Your task to perform on an android device: open app "Microsoft Excel" Image 0: 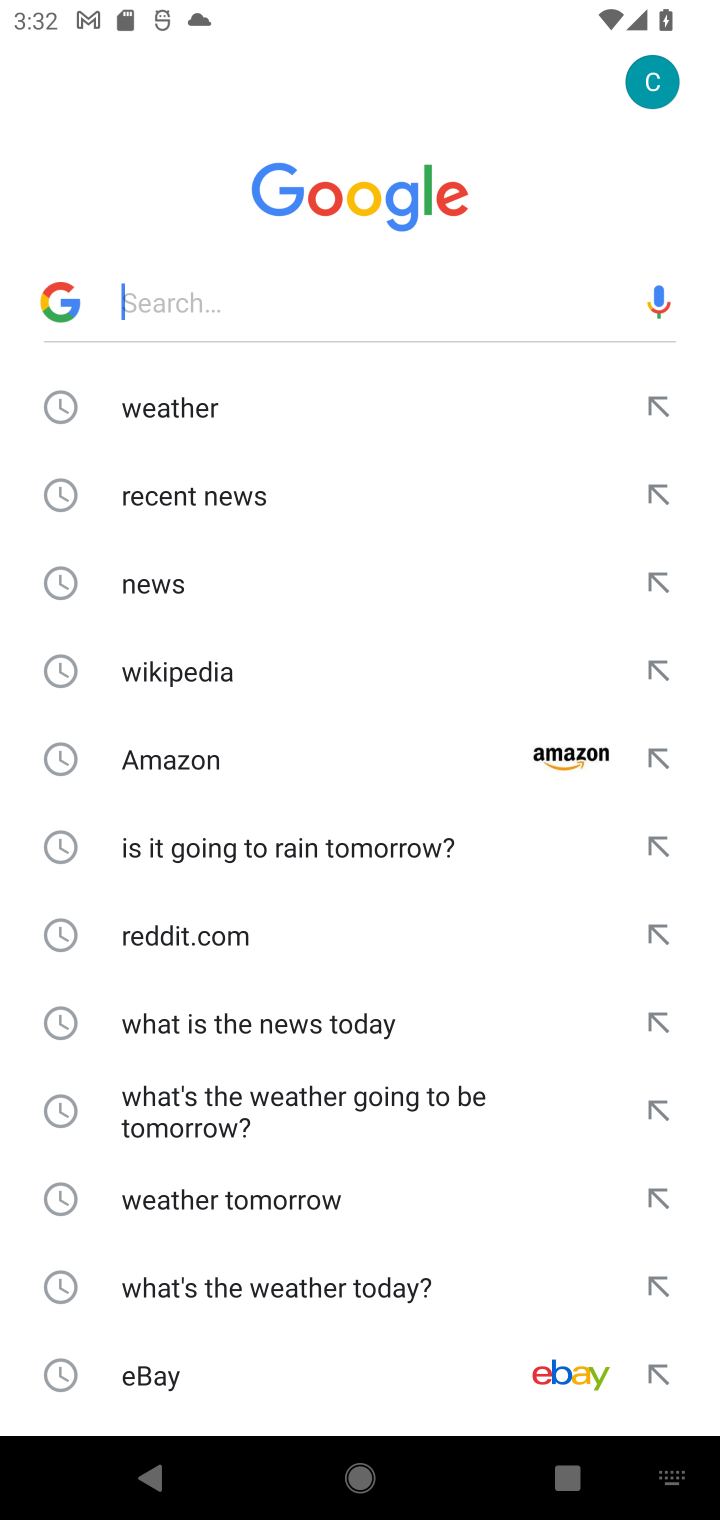
Step 0: press home button
Your task to perform on an android device: open app "Microsoft Excel" Image 1: 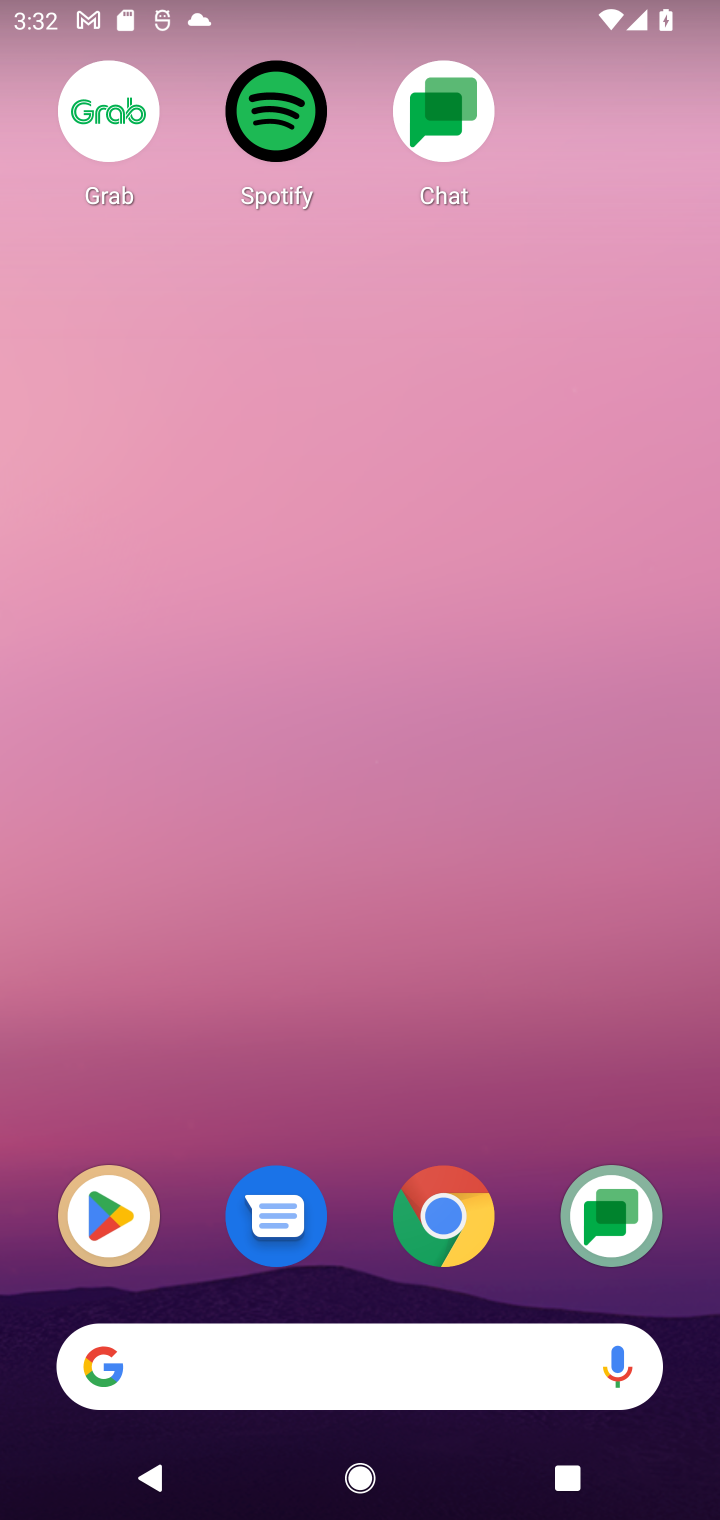
Step 1: click (442, 1324)
Your task to perform on an android device: open app "Microsoft Excel" Image 2: 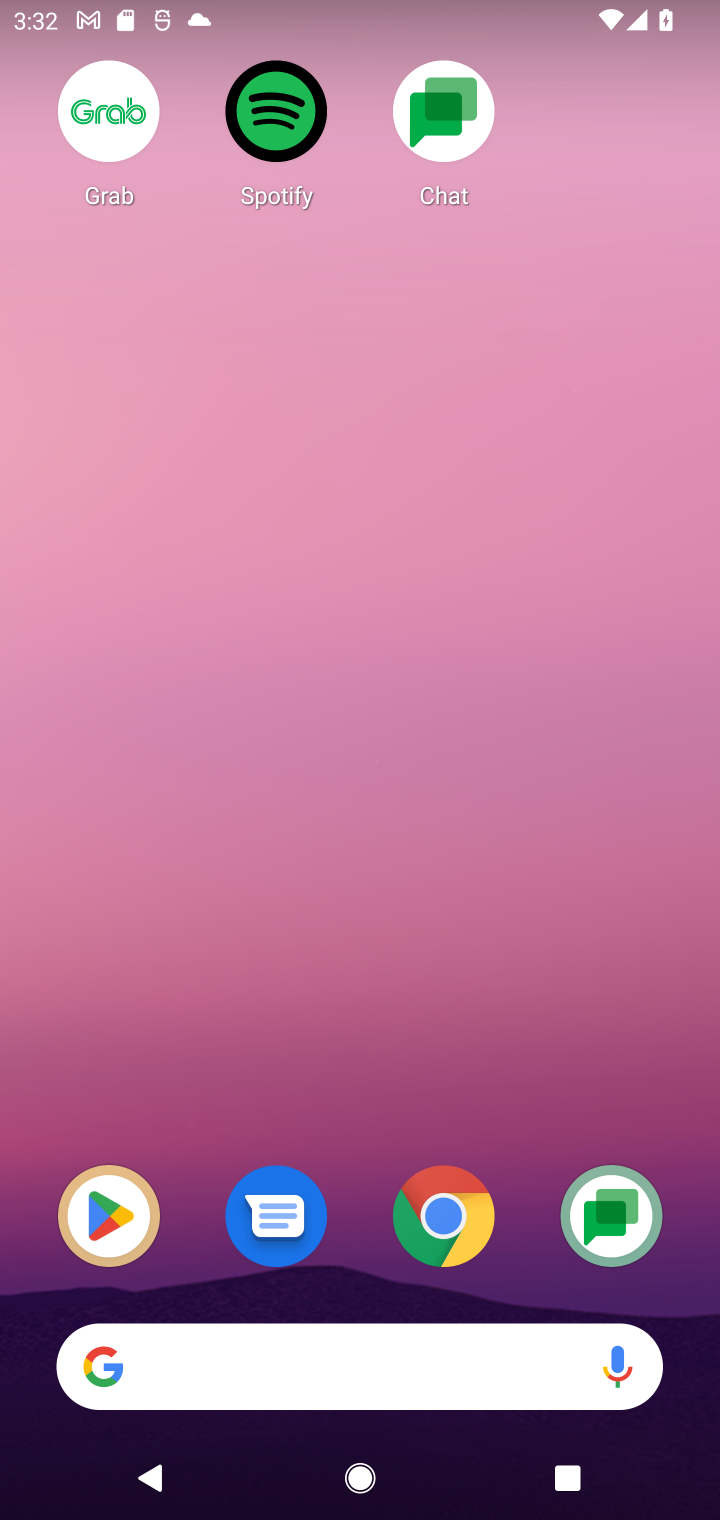
Step 2: drag from (442, 1324) to (409, 165)
Your task to perform on an android device: open app "Microsoft Excel" Image 3: 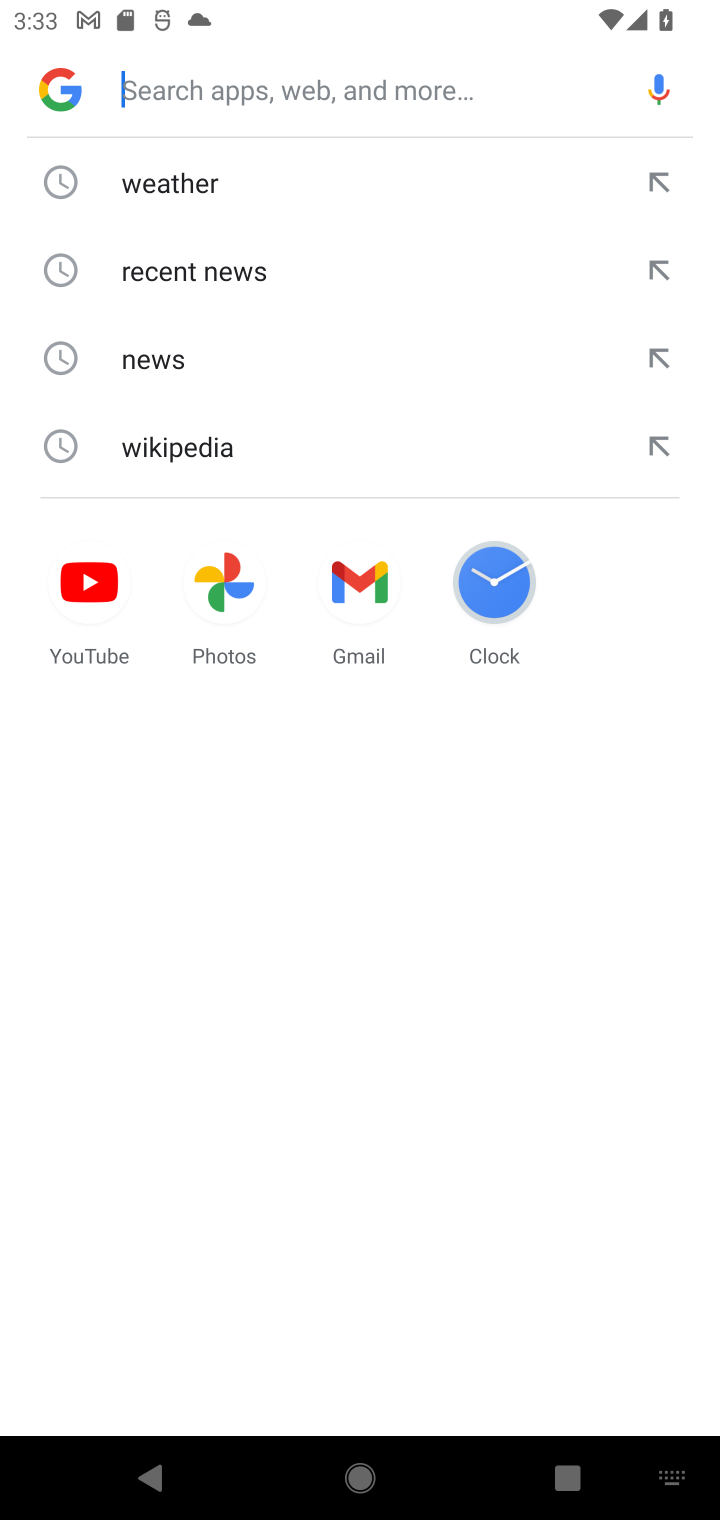
Step 3: press home button
Your task to perform on an android device: open app "Microsoft Excel" Image 4: 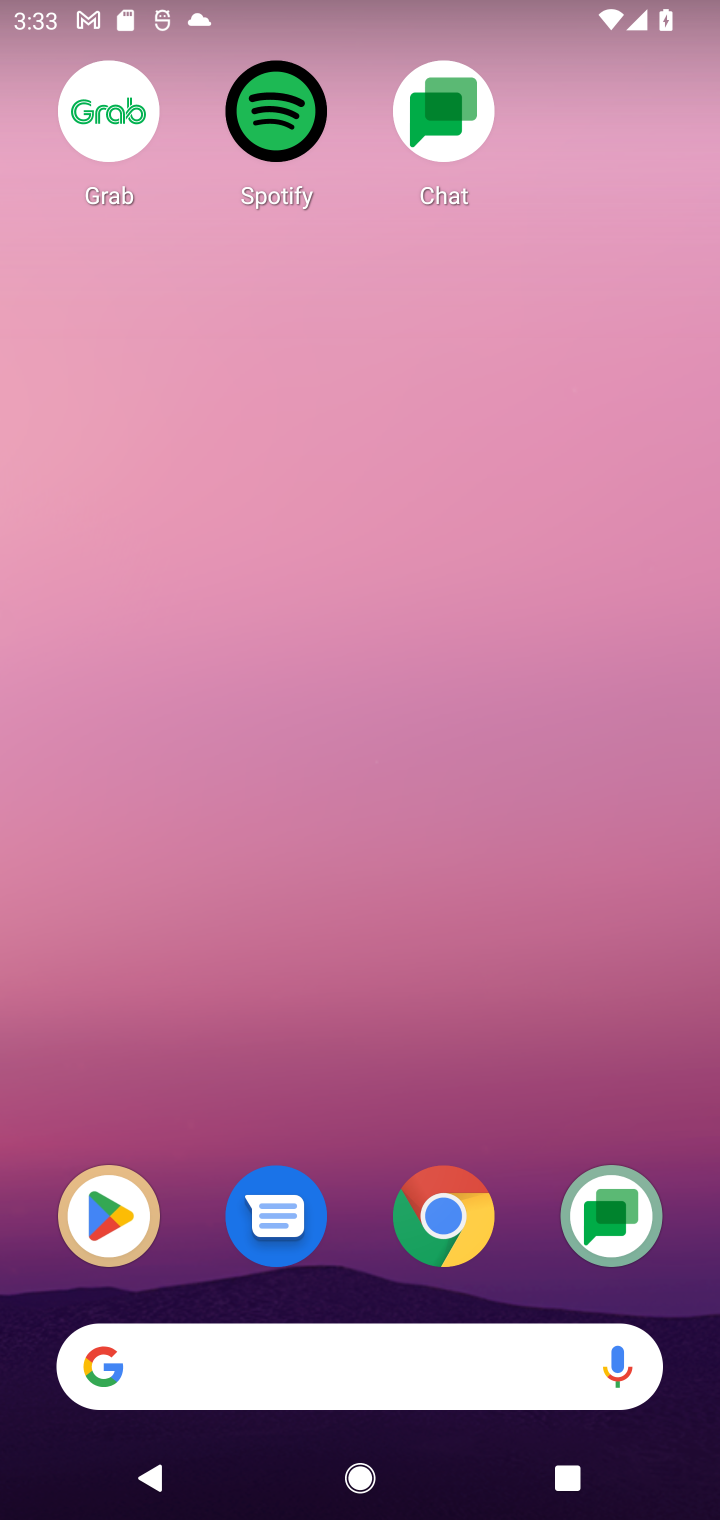
Step 4: drag from (495, 1345) to (543, 125)
Your task to perform on an android device: open app "Microsoft Excel" Image 5: 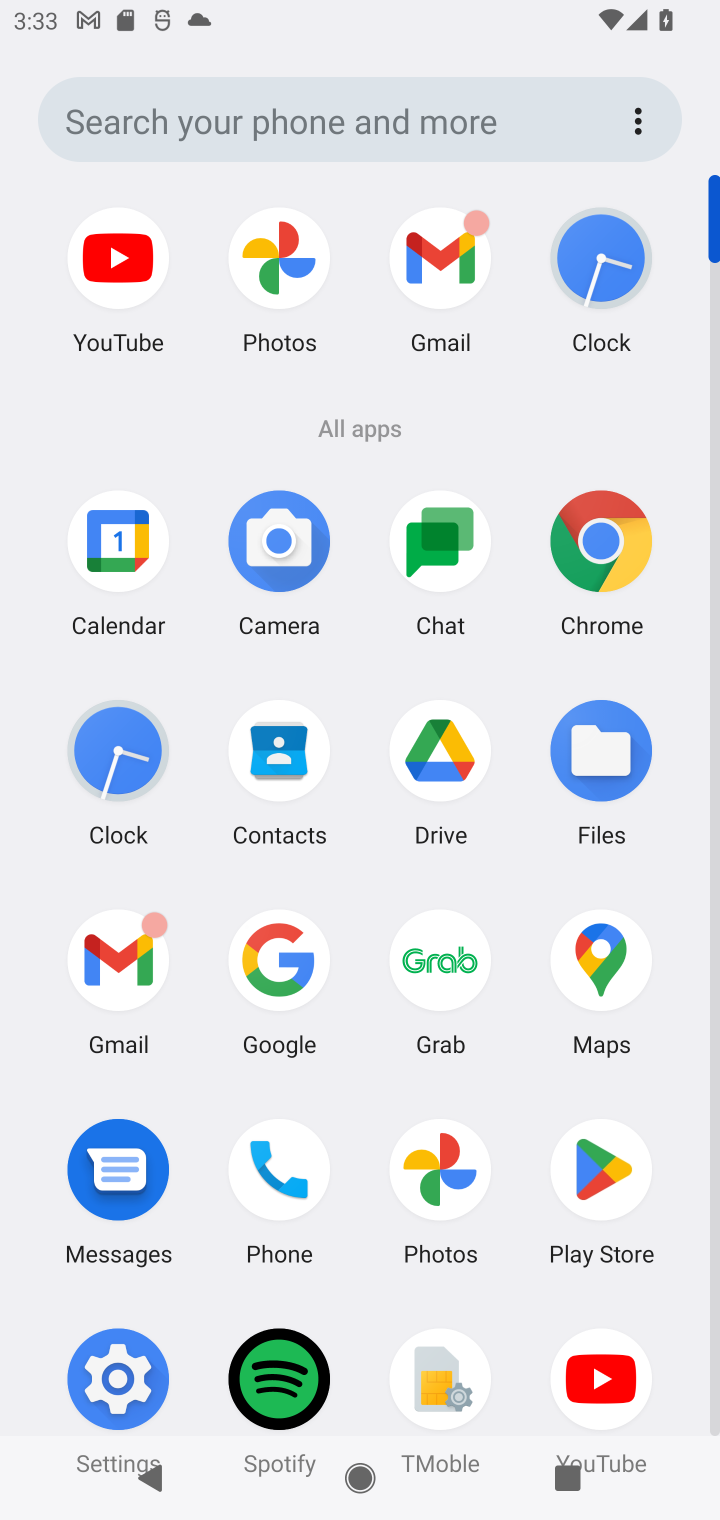
Step 5: click (615, 1163)
Your task to perform on an android device: open app "Microsoft Excel" Image 6: 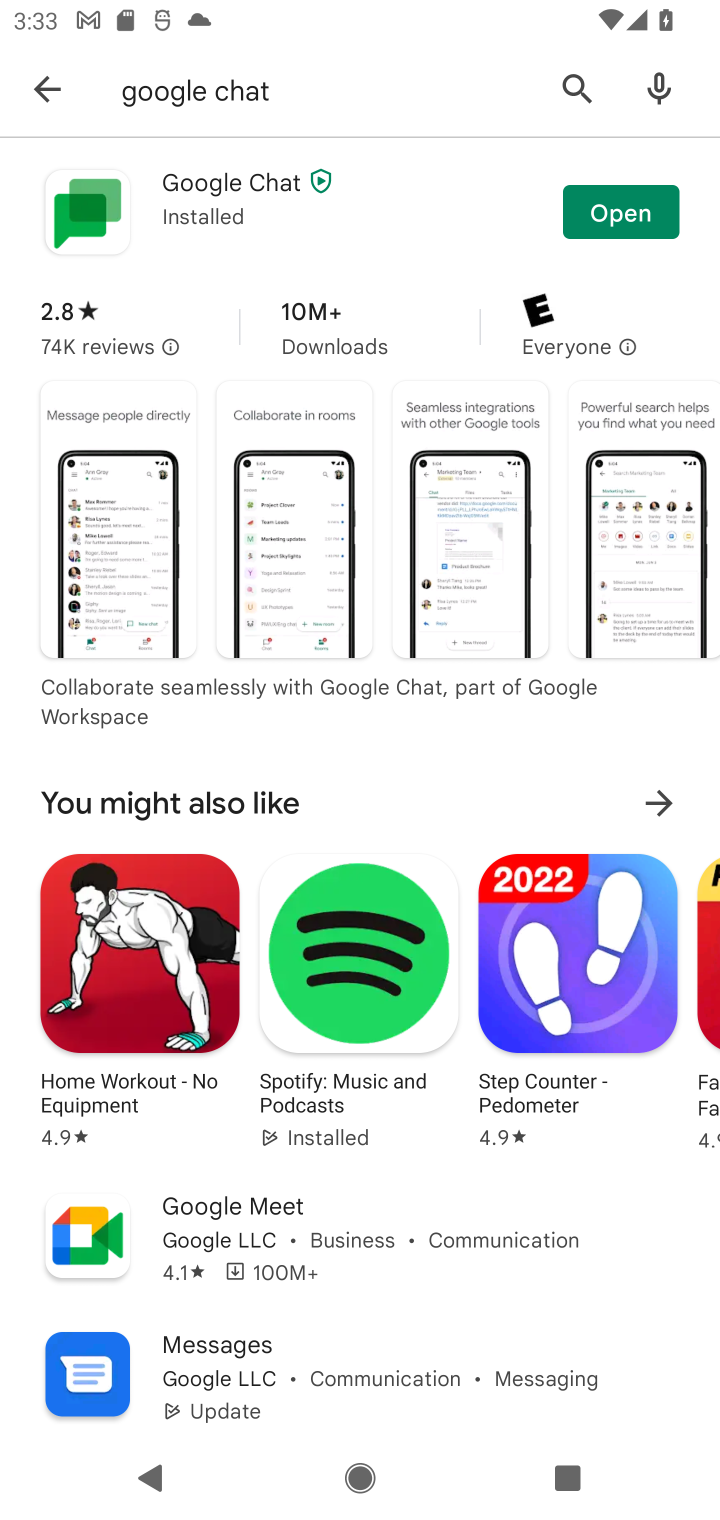
Step 6: click (568, 76)
Your task to perform on an android device: open app "Microsoft Excel" Image 7: 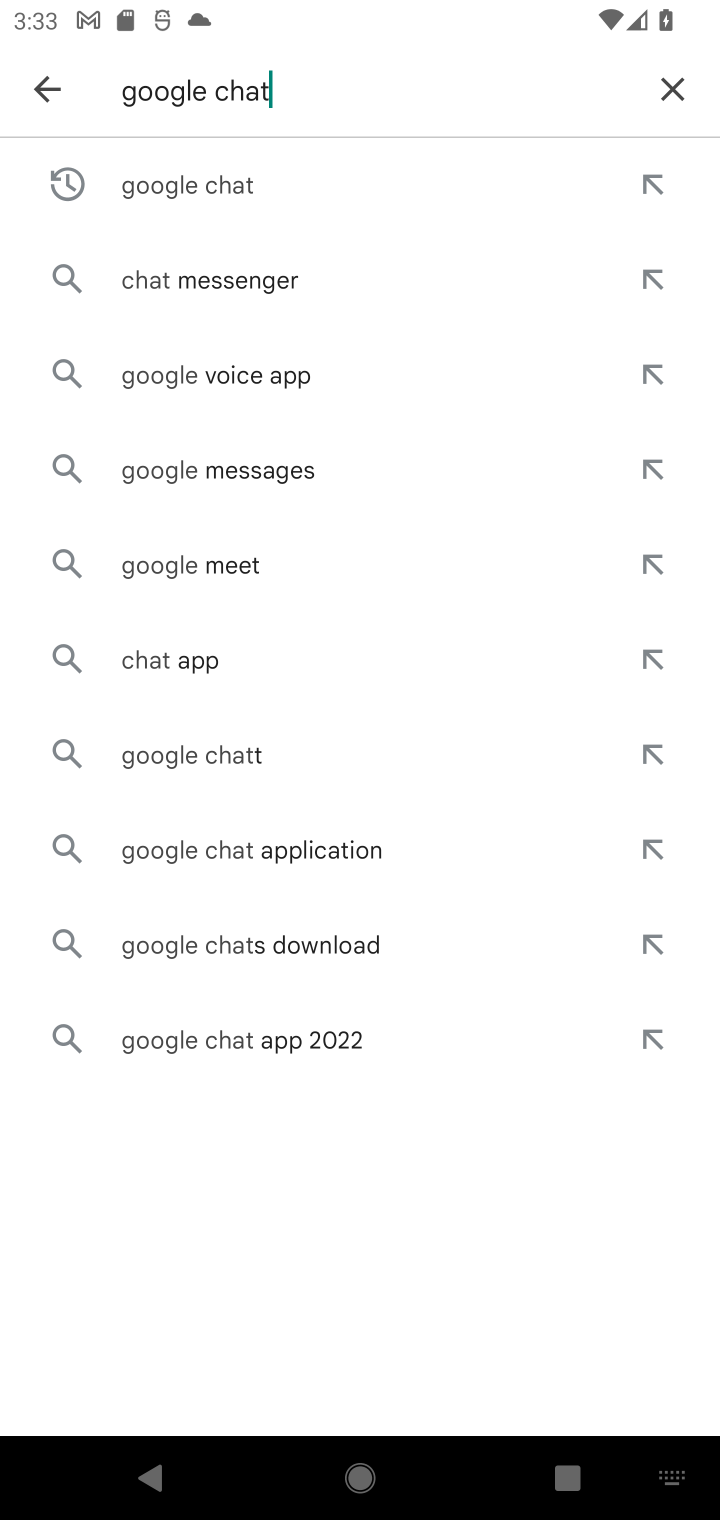
Step 7: click (665, 90)
Your task to perform on an android device: open app "Microsoft Excel" Image 8: 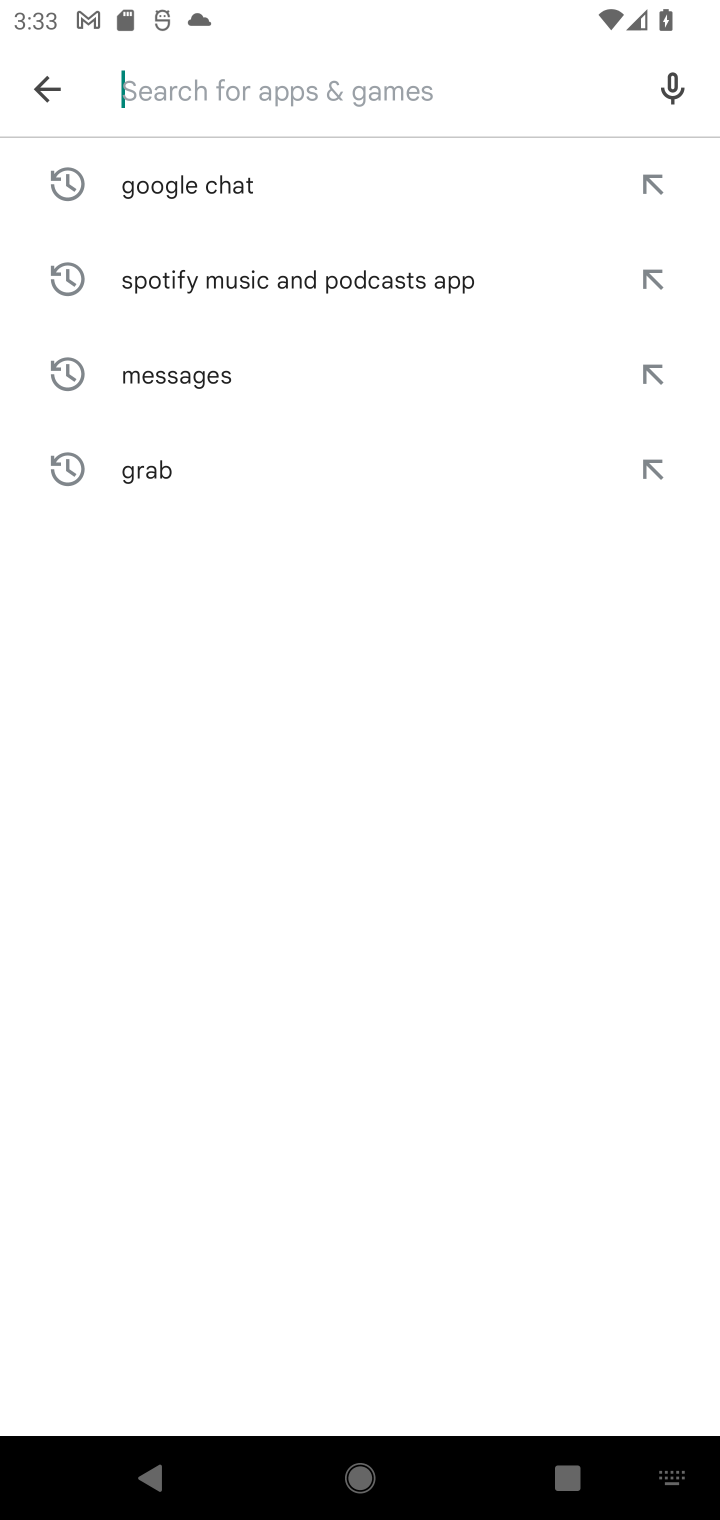
Step 8: type "microsoft excel"
Your task to perform on an android device: open app "Microsoft Excel" Image 9: 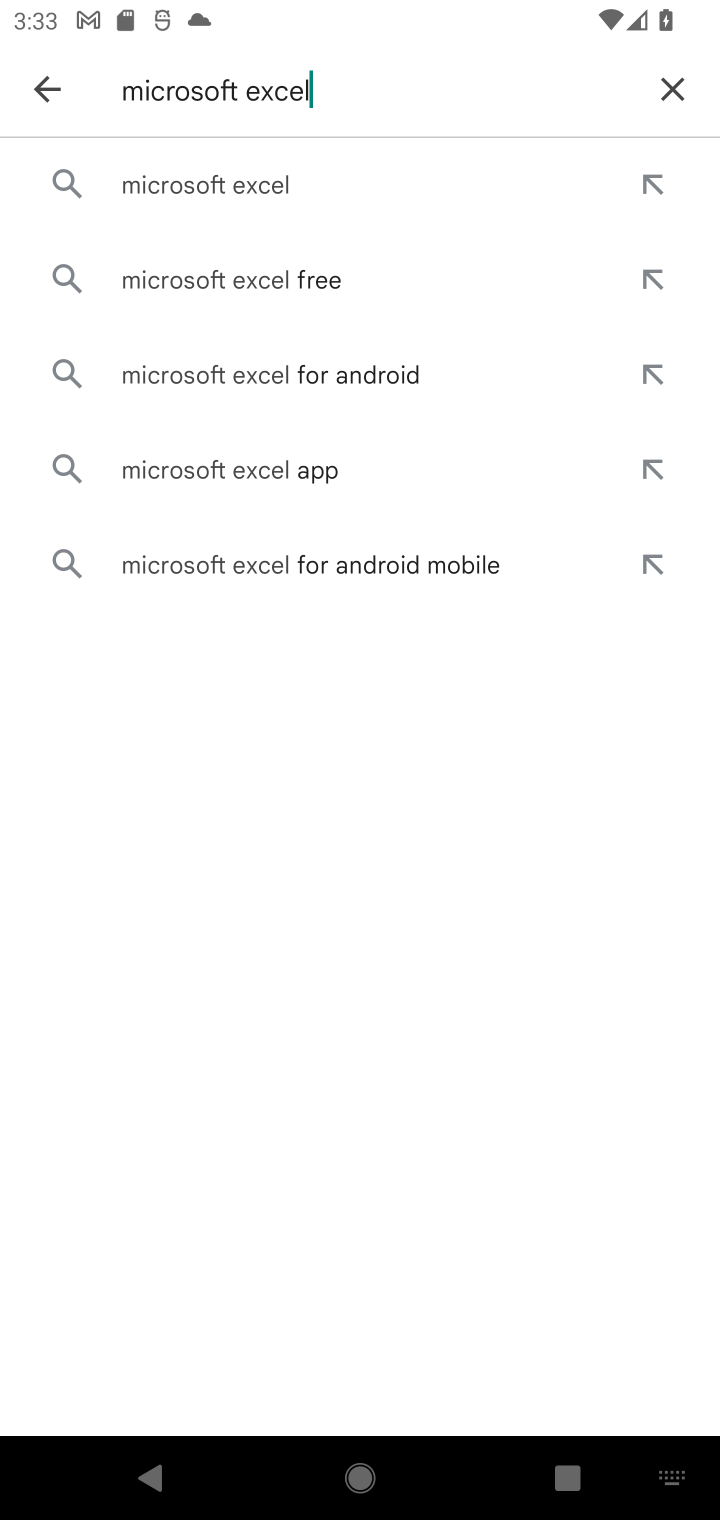
Step 9: click (219, 170)
Your task to perform on an android device: open app "Microsoft Excel" Image 10: 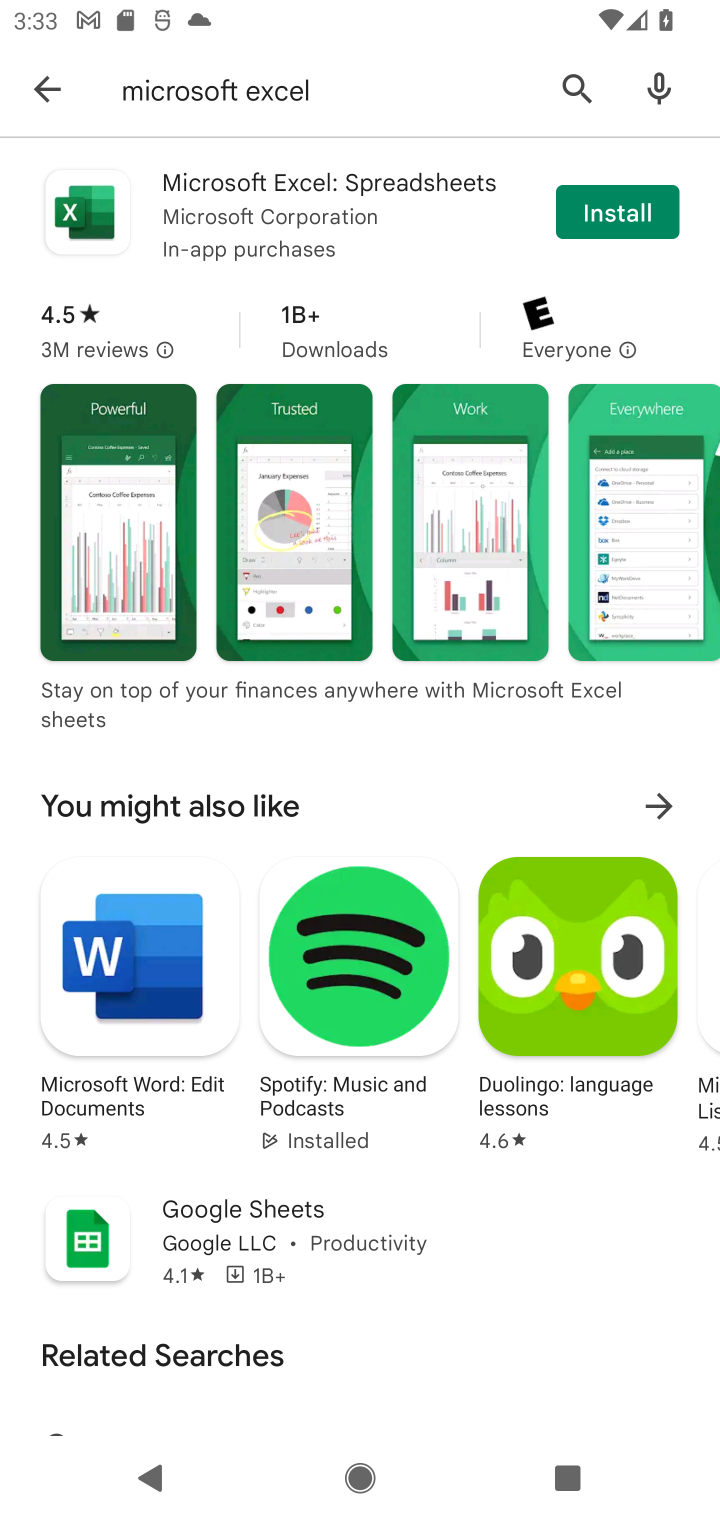
Step 10: task complete